Your task to perform on an android device: toggle airplane mode Image 0: 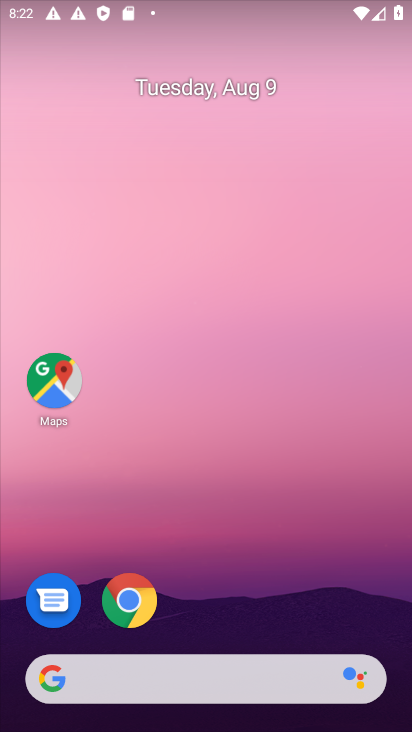
Step 0: drag from (232, 6) to (297, 534)
Your task to perform on an android device: toggle airplane mode Image 1: 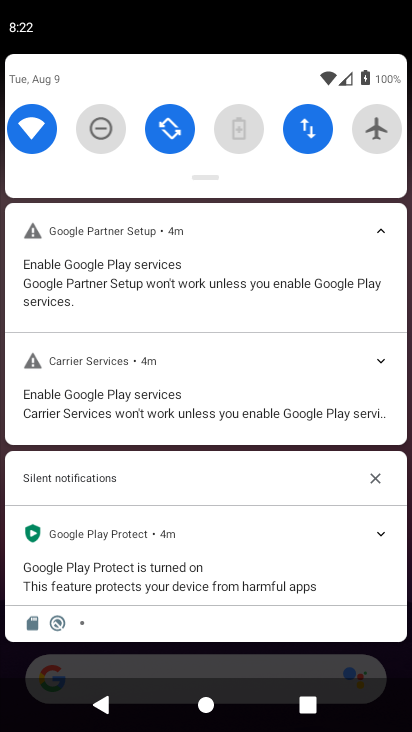
Step 1: click (380, 131)
Your task to perform on an android device: toggle airplane mode Image 2: 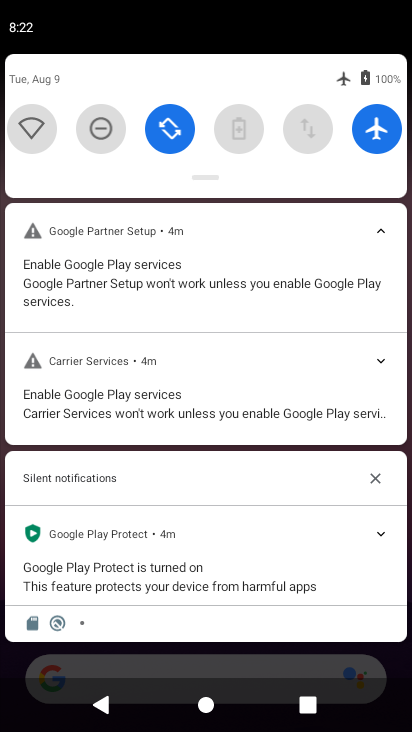
Step 2: task complete